Your task to perform on an android device: What's the weather today? Image 0: 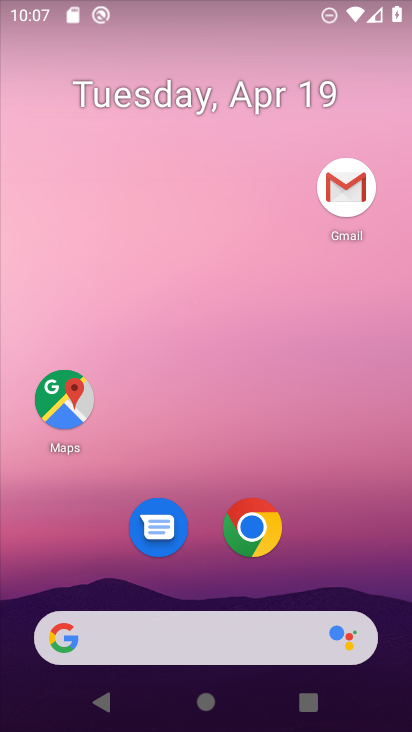
Step 0: drag from (360, 516) to (381, 8)
Your task to perform on an android device: What's the weather today? Image 1: 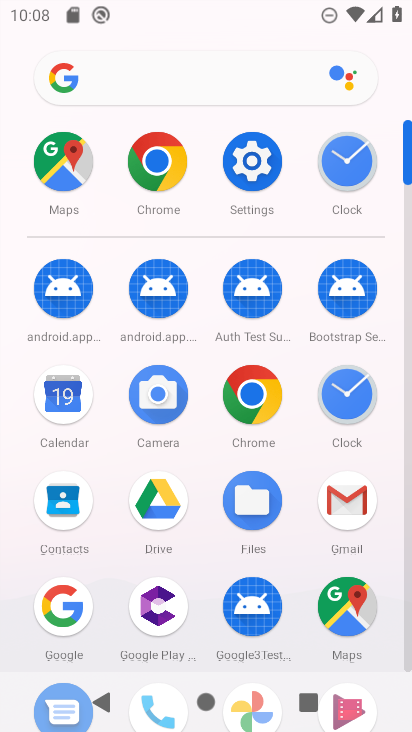
Step 1: click (267, 402)
Your task to perform on an android device: What's the weather today? Image 2: 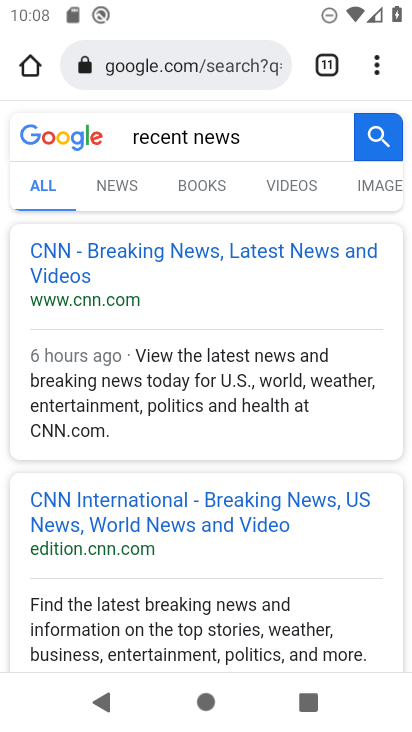
Step 2: click (244, 76)
Your task to perform on an android device: What's the weather today? Image 3: 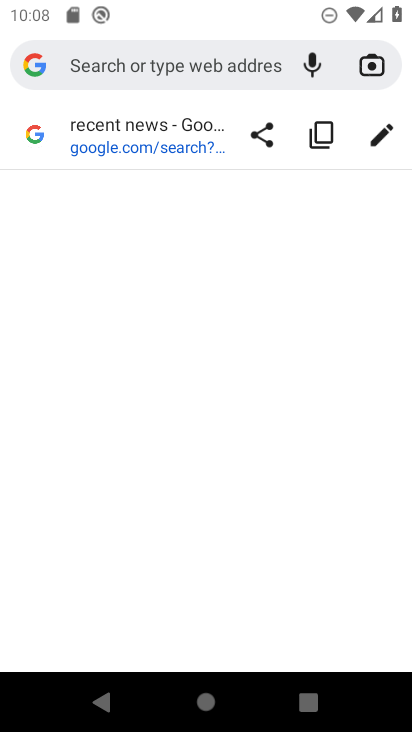
Step 3: type "weather"
Your task to perform on an android device: What's the weather today? Image 4: 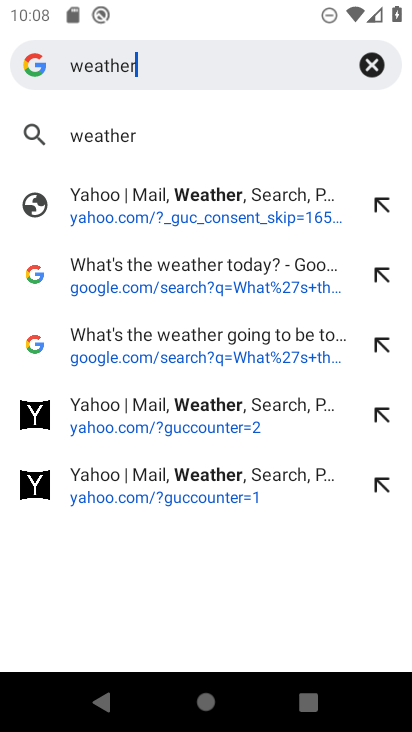
Step 4: click (89, 135)
Your task to perform on an android device: What's the weather today? Image 5: 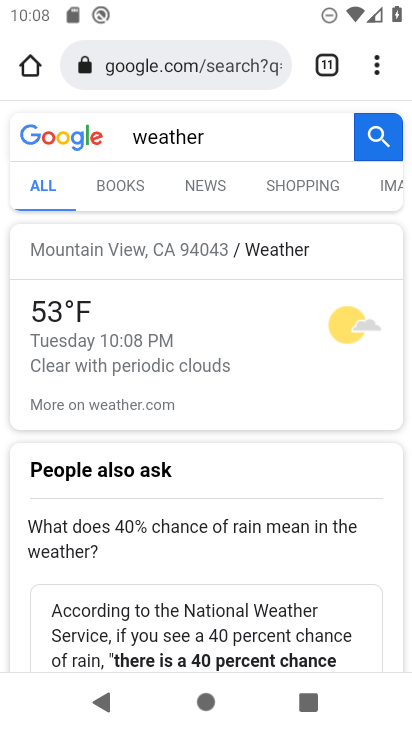
Step 5: task complete